Your task to perform on an android device: Open my contact list Image 0: 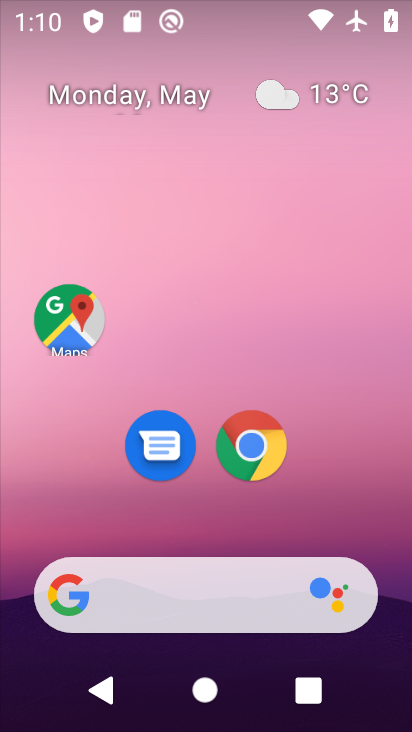
Step 0: drag from (394, 603) to (253, 99)
Your task to perform on an android device: Open my contact list Image 1: 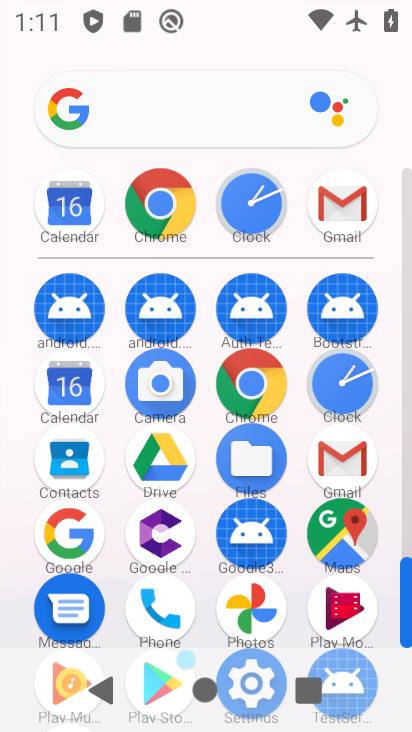
Step 1: click (79, 459)
Your task to perform on an android device: Open my contact list Image 2: 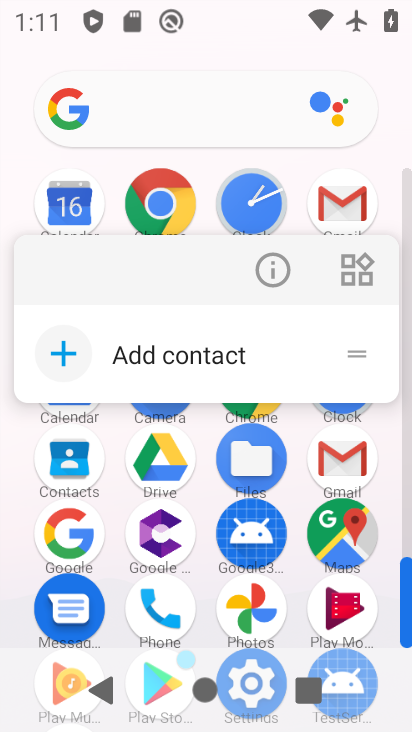
Step 2: click (79, 459)
Your task to perform on an android device: Open my contact list Image 3: 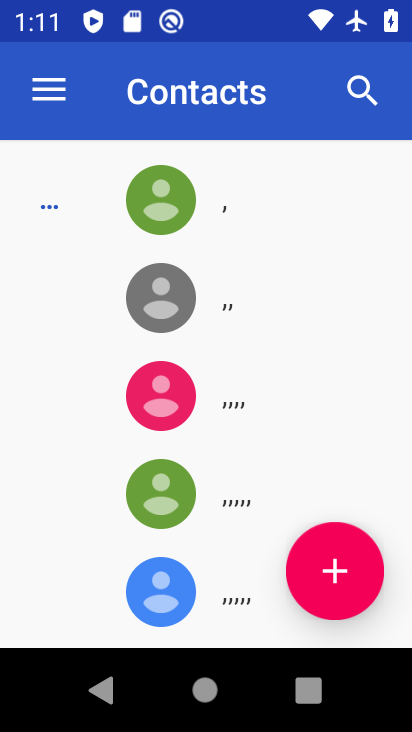
Step 3: task complete